Your task to perform on an android device: What's on my calendar tomorrow? Image 0: 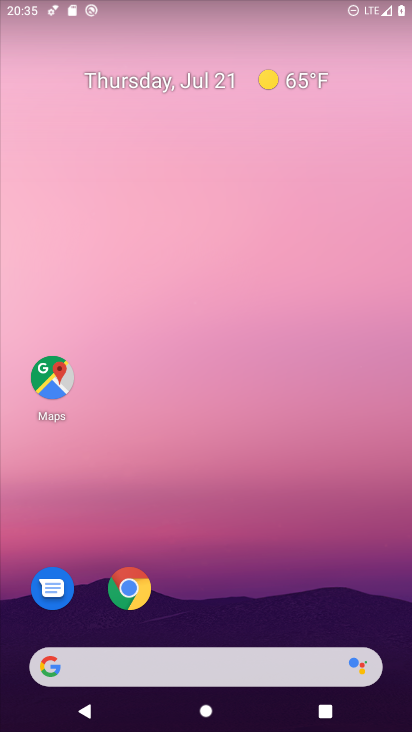
Step 0: drag from (224, 629) to (159, 147)
Your task to perform on an android device: What's on my calendar tomorrow? Image 1: 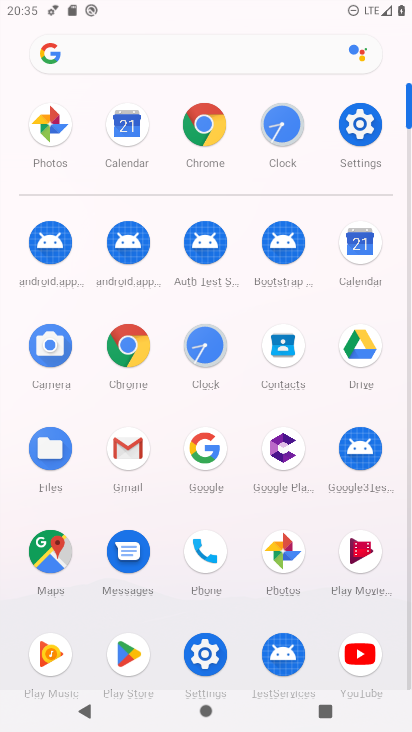
Step 1: click (355, 247)
Your task to perform on an android device: What's on my calendar tomorrow? Image 2: 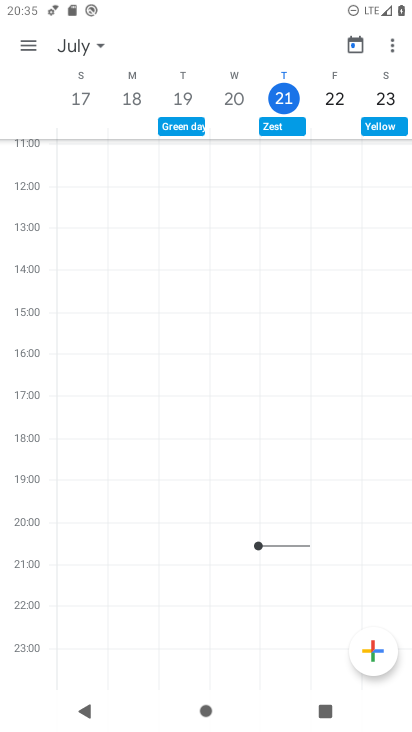
Step 2: click (326, 101)
Your task to perform on an android device: What's on my calendar tomorrow? Image 3: 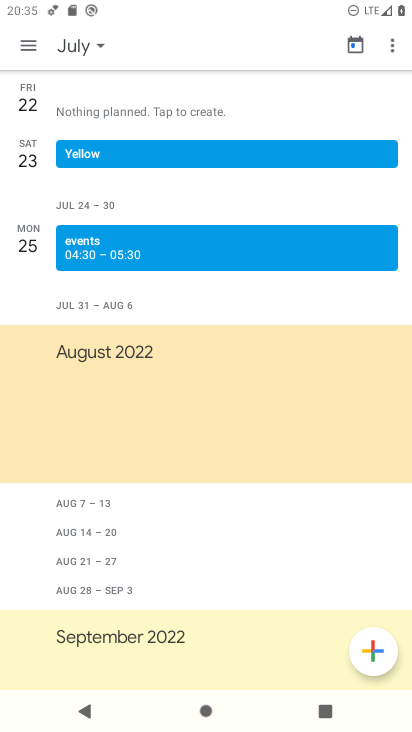
Step 3: task complete